Your task to perform on an android device: Search for asus zenbook on newegg.com, select the first entry, add it to the cart, then select checkout. Image 0: 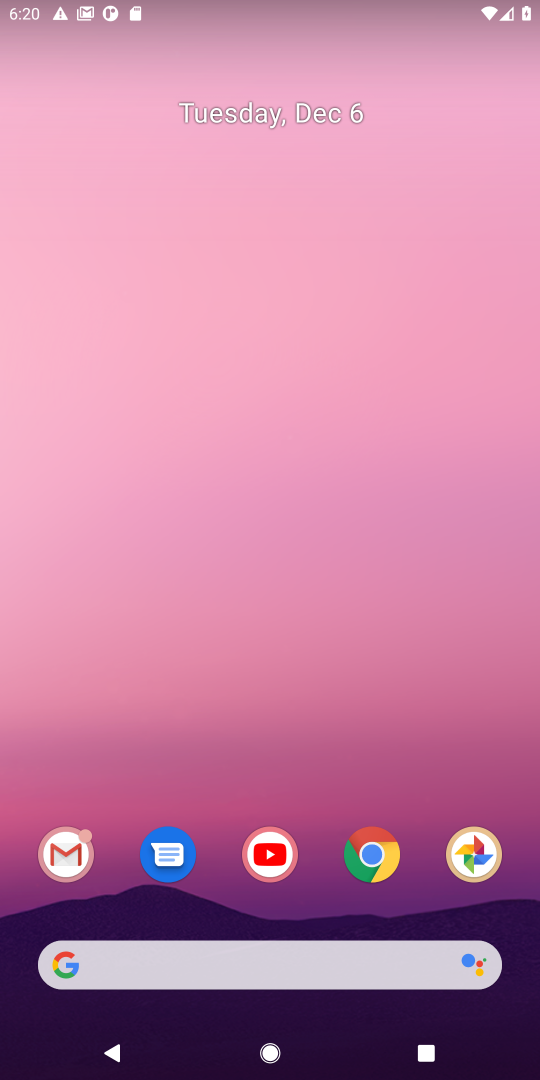
Step 0: click (374, 863)
Your task to perform on an android device: Search for asus zenbook on newegg.com, select the first entry, add it to the cart, then select checkout. Image 1: 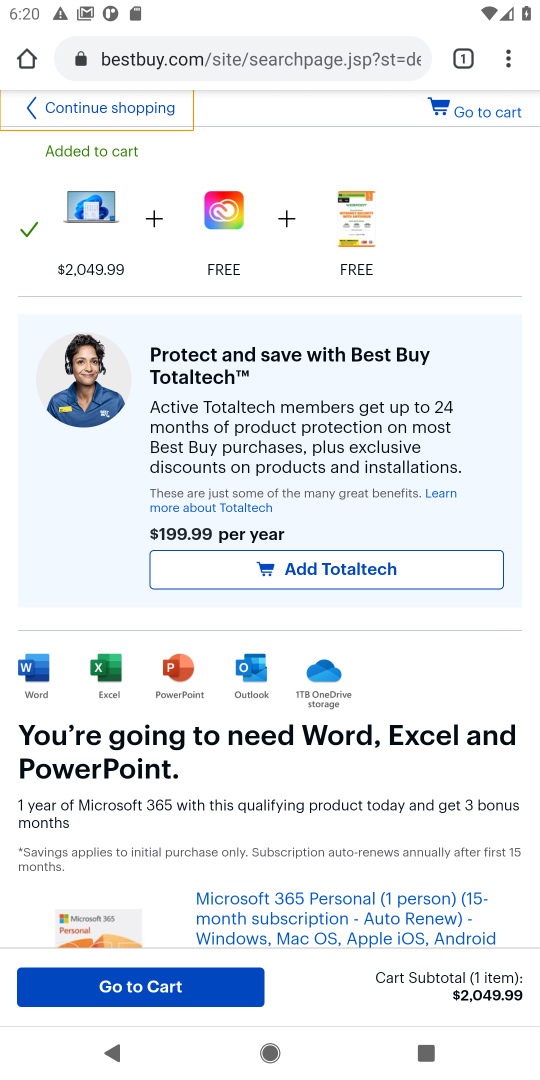
Step 1: click (460, 60)
Your task to perform on an android device: Search for asus zenbook on newegg.com, select the first entry, add it to the cart, then select checkout. Image 2: 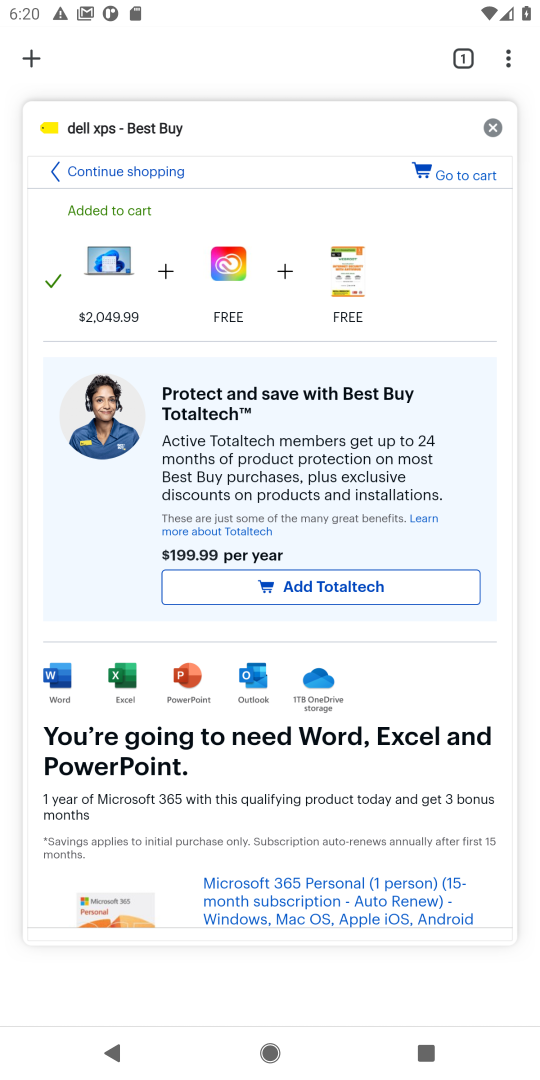
Step 2: click (32, 58)
Your task to perform on an android device: Search for asus zenbook on newegg.com, select the first entry, add it to the cart, then select checkout. Image 3: 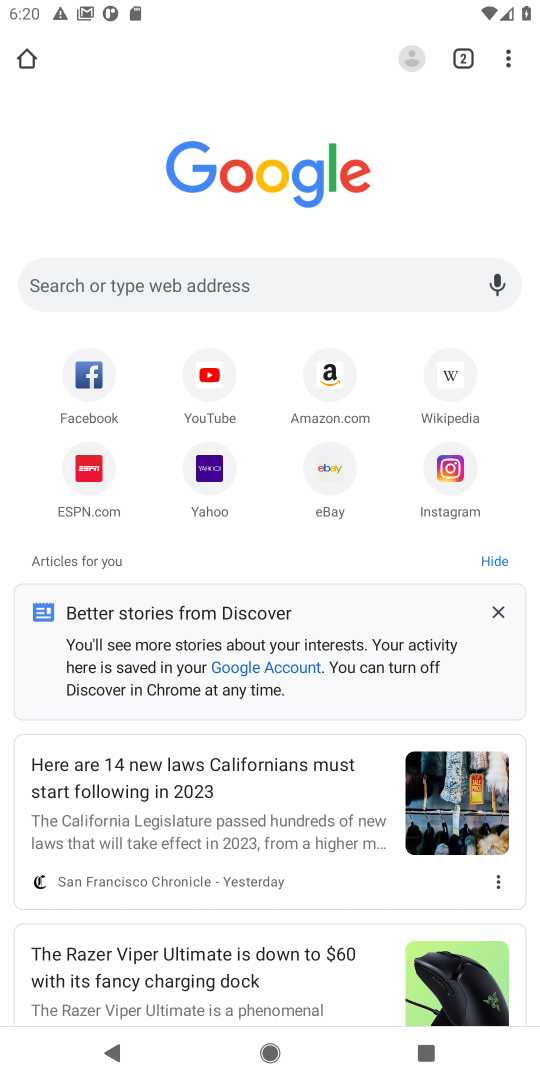
Step 3: click (242, 285)
Your task to perform on an android device: Search for asus zenbook on newegg.com, select the first entry, add it to the cart, then select checkout. Image 4: 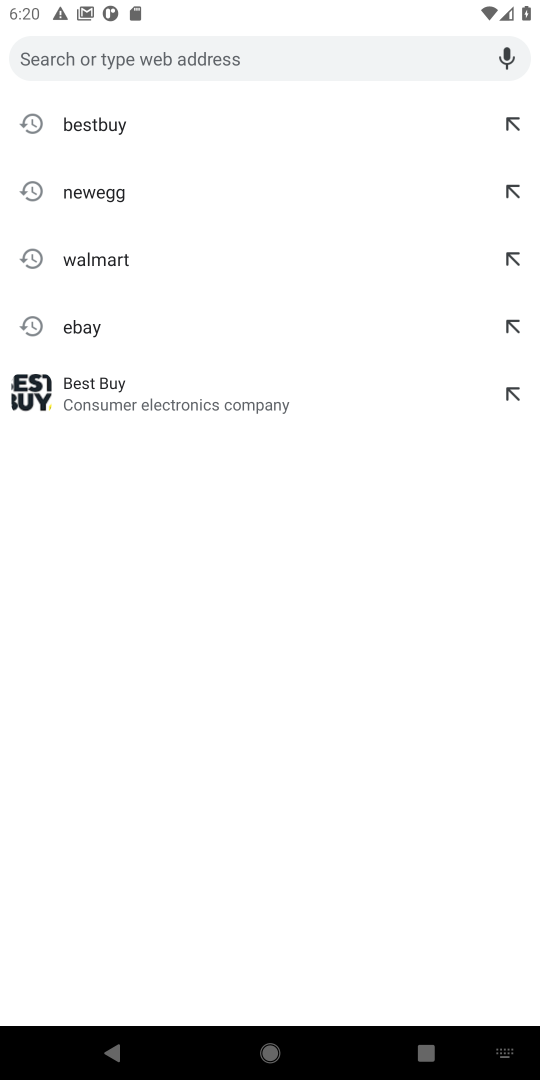
Step 4: click (99, 194)
Your task to perform on an android device: Search for asus zenbook on newegg.com, select the first entry, add it to the cart, then select checkout. Image 5: 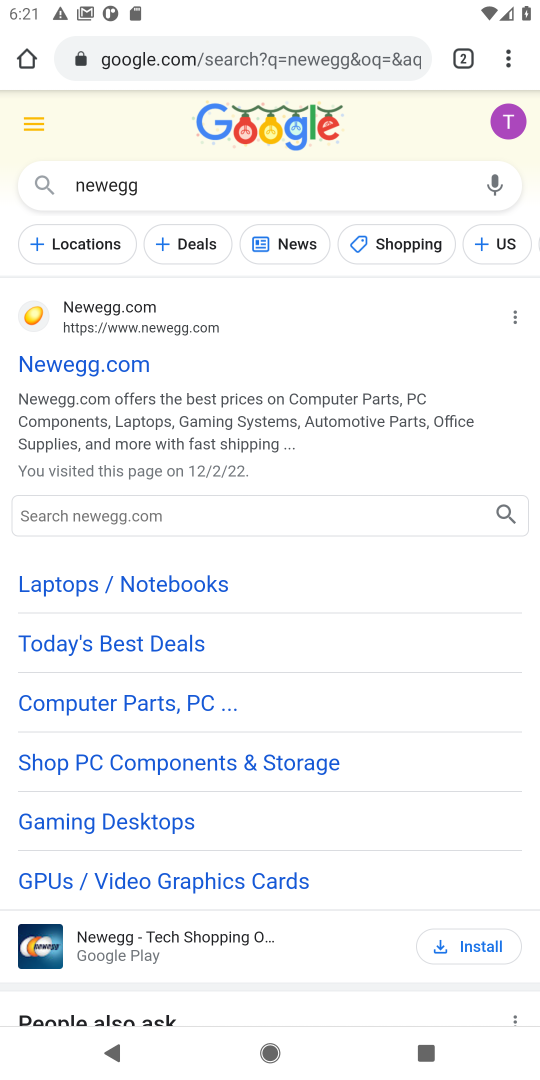
Step 5: click (294, 514)
Your task to perform on an android device: Search for asus zenbook on newegg.com, select the first entry, add it to the cart, then select checkout. Image 6: 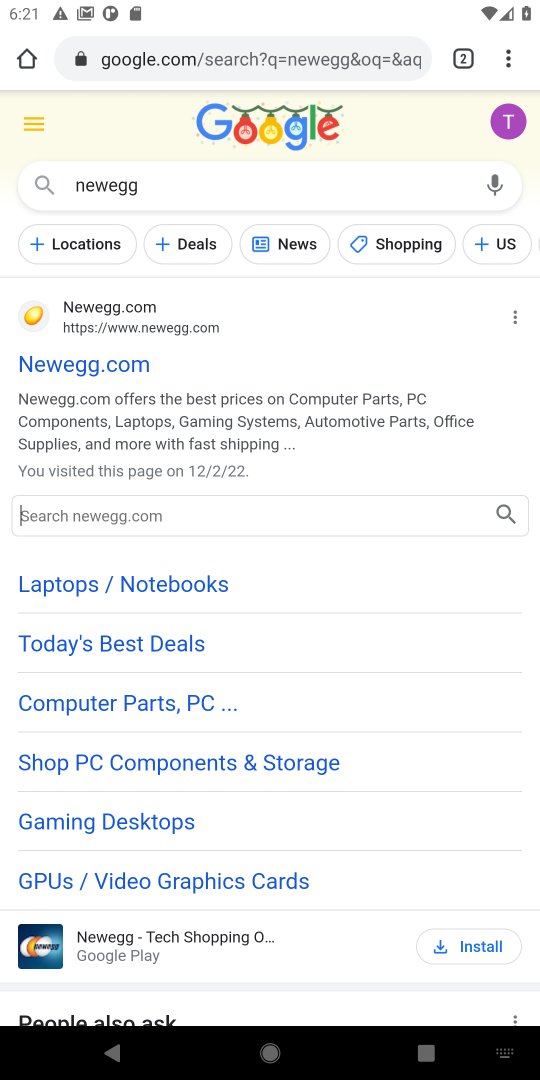
Step 6: type "asus zenbook"
Your task to perform on an android device: Search for asus zenbook on newegg.com, select the first entry, add it to the cart, then select checkout. Image 7: 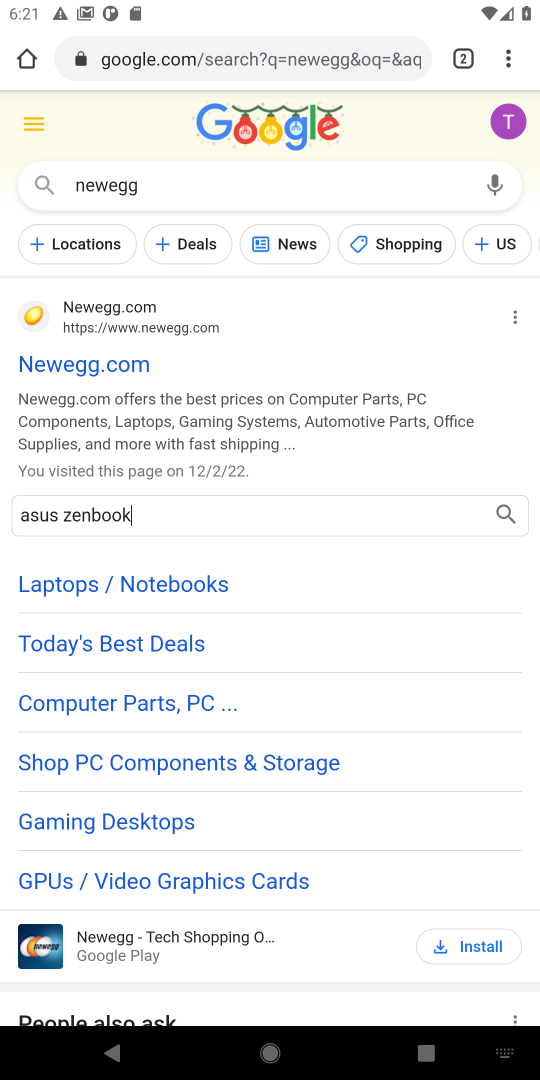
Step 7: click (500, 510)
Your task to perform on an android device: Search for asus zenbook on newegg.com, select the first entry, add it to the cart, then select checkout. Image 8: 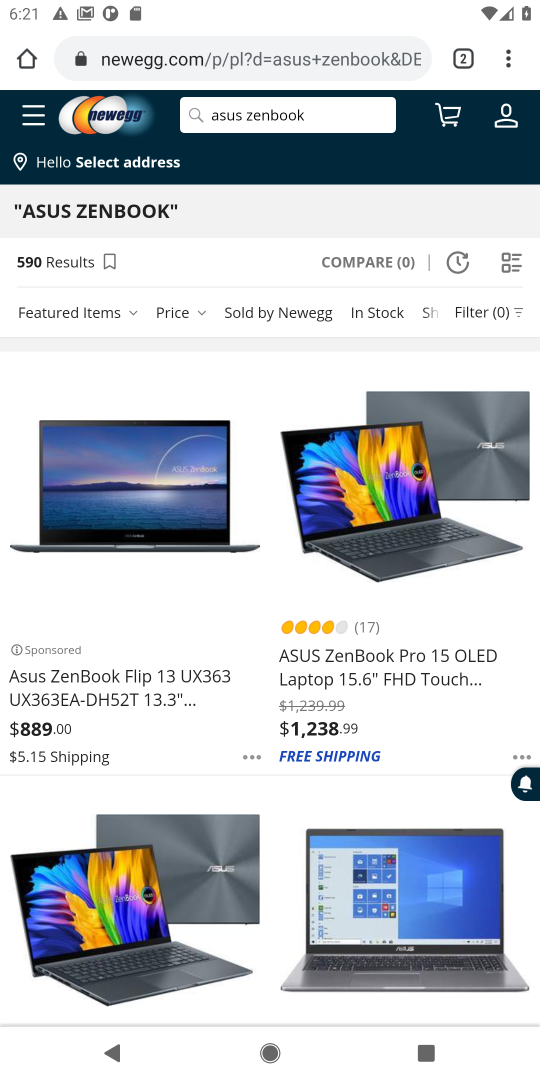
Step 8: click (114, 678)
Your task to perform on an android device: Search for asus zenbook on newegg.com, select the first entry, add it to the cart, then select checkout. Image 9: 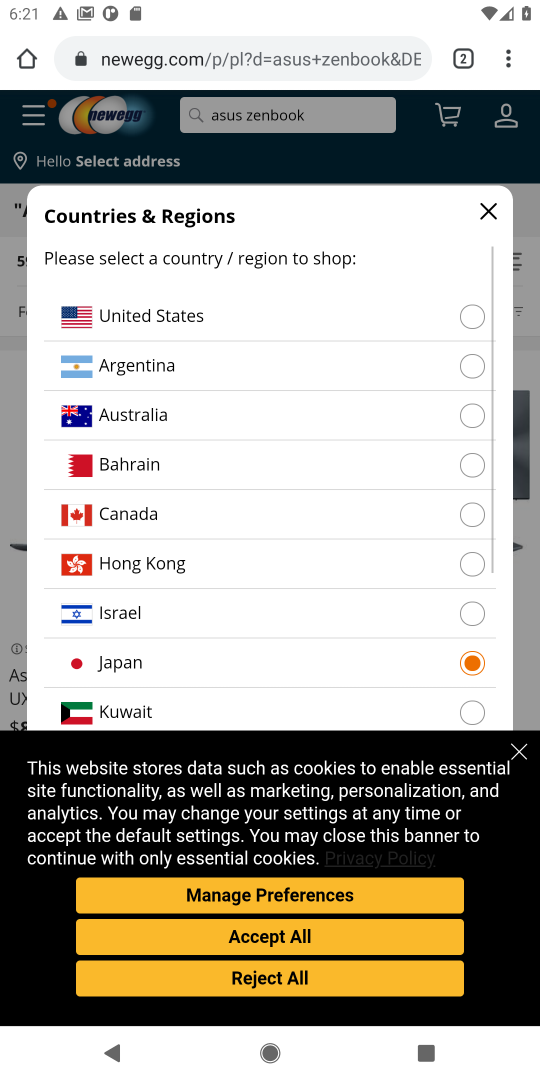
Step 9: click (322, 948)
Your task to perform on an android device: Search for asus zenbook on newegg.com, select the first entry, add it to the cart, then select checkout. Image 10: 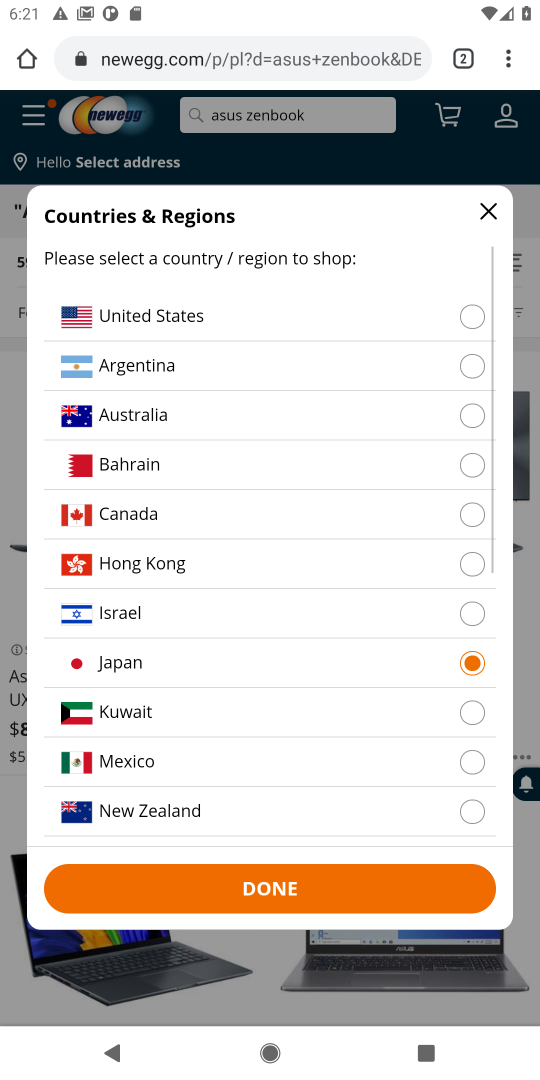
Step 10: click (374, 900)
Your task to perform on an android device: Search for asus zenbook on newegg.com, select the first entry, add it to the cart, then select checkout. Image 11: 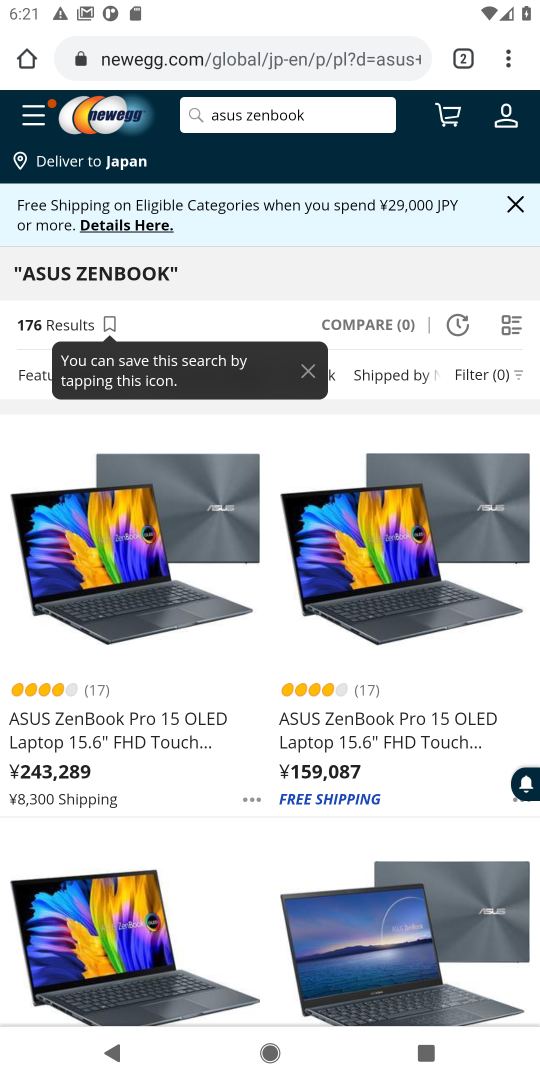
Step 11: click (135, 729)
Your task to perform on an android device: Search for asus zenbook on newegg.com, select the first entry, add it to the cart, then select checkout. Image 12: 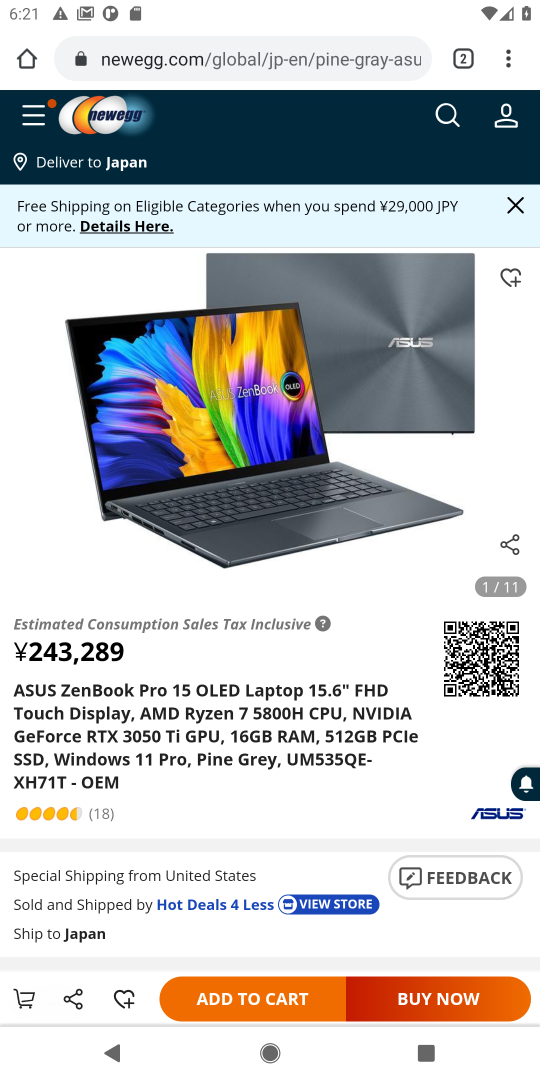
Step 12: click (277, 996)
Your task to perform on an android device: Search for asus zenbook on newegg.com, select the first entry, add it to the cart, then select checkout. Image 13: 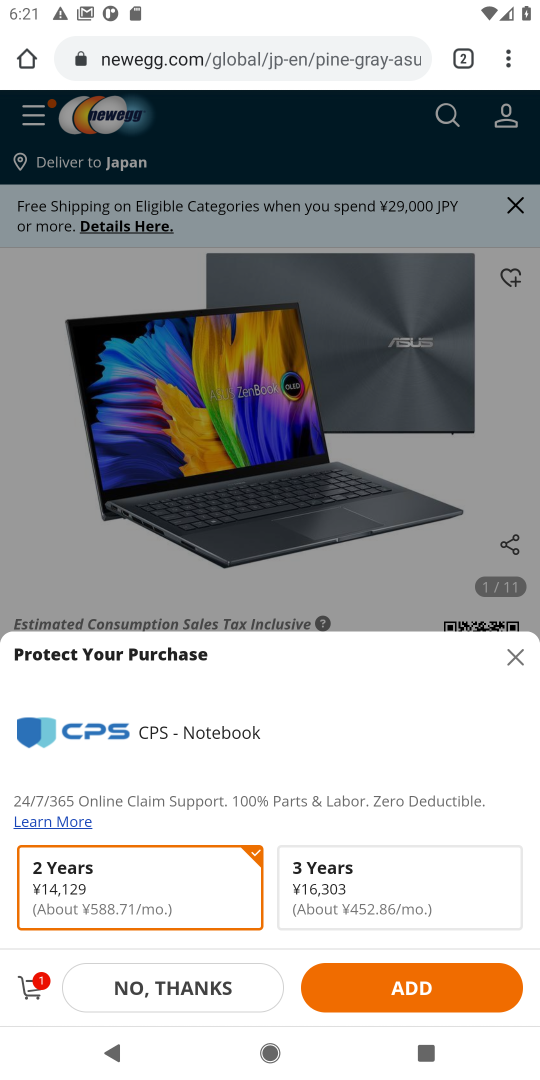
Step 13: click (24, 986)
Your task to perform on an android device: Search for asus zenbook on newegg.com, select the first entry, add it to the cart, then select checkout. Image 14: 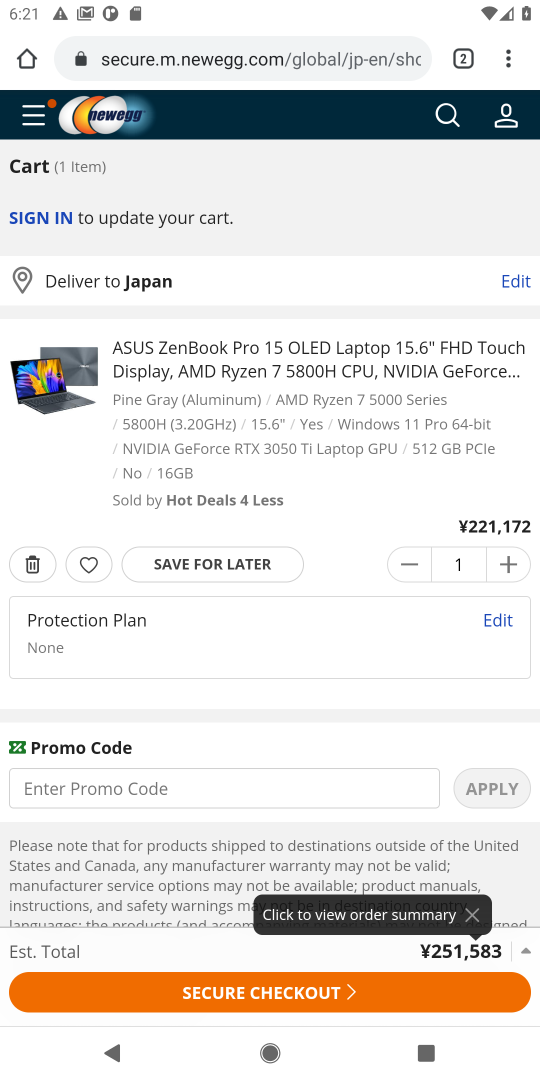
Step 14: click (229, 986)
Your task to perform on an android device: Search for asus zenbook on newegg.com, select the first entry, add it to the cart, then select checkout. Image 15: 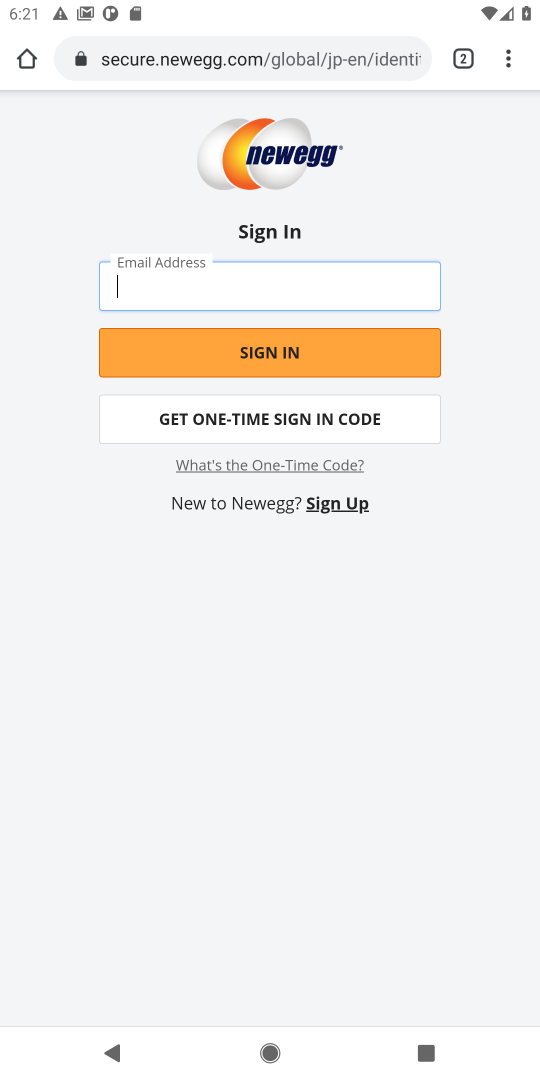
Step 15: task complete